Your task to perform on an android device: Is it going to rain tomorrow? Image 0: 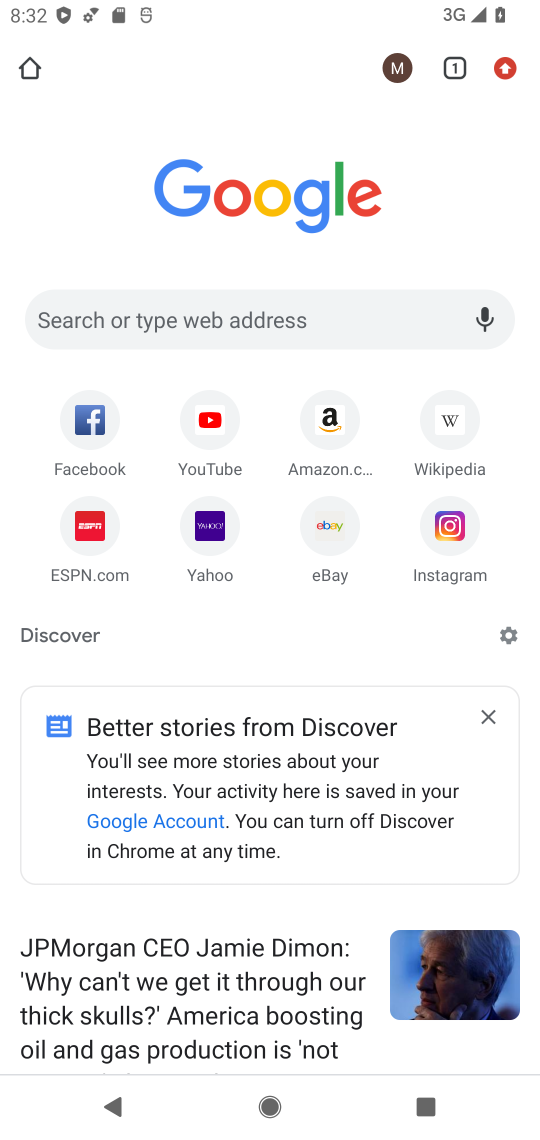
Step 0: press home button
Your task to perform on an android device: Is it going to rain tomorrow? Image 1: 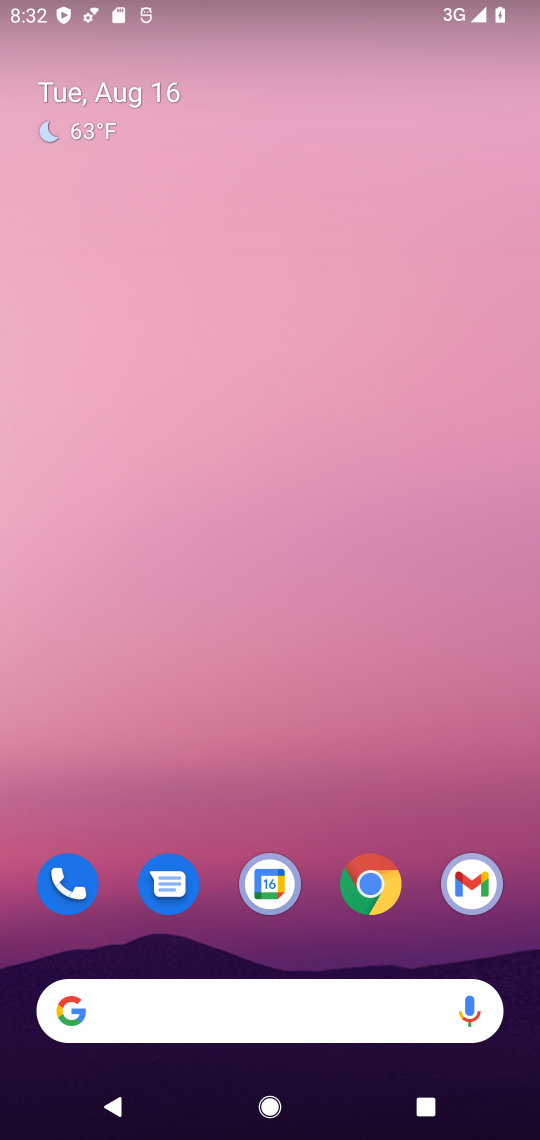
Step 1: click (75, 131)
Your task to perform on an android device: Is it going to rain tomorrow? Image 2: 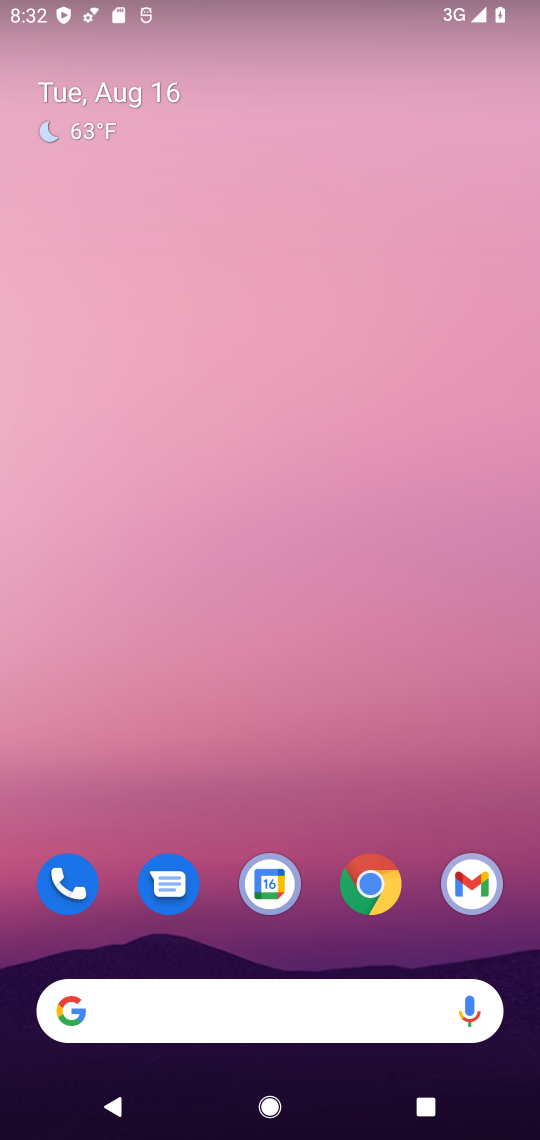
Step 2: click (48, 138)
Your task to perform on an android device: Is it going to rain tomorrow? Image 3: 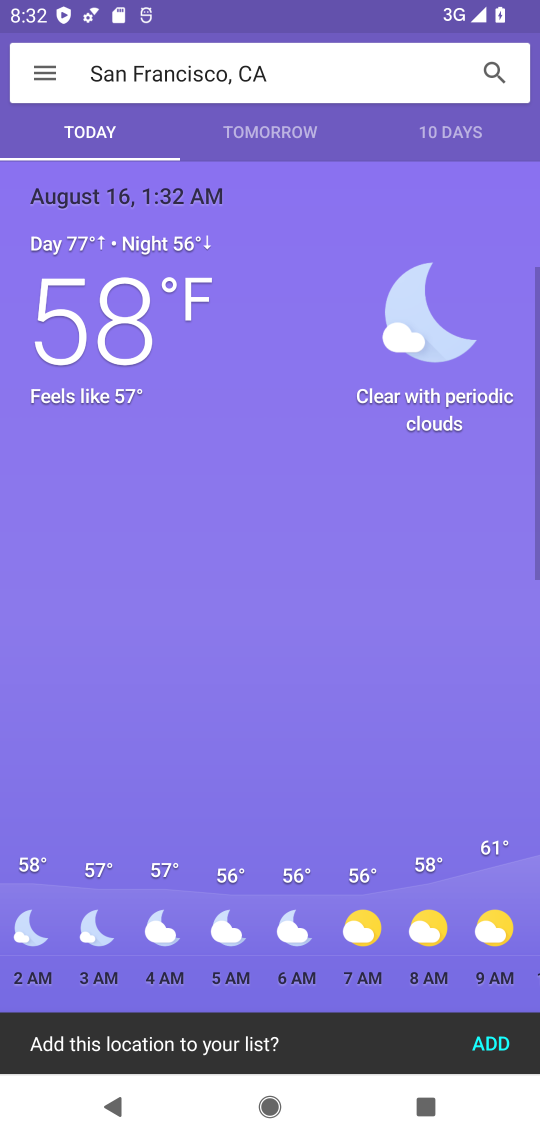
Step 3: click (260, 135)
Your task to perform on an android device: Is it going to rain tomorrow? Image 4: 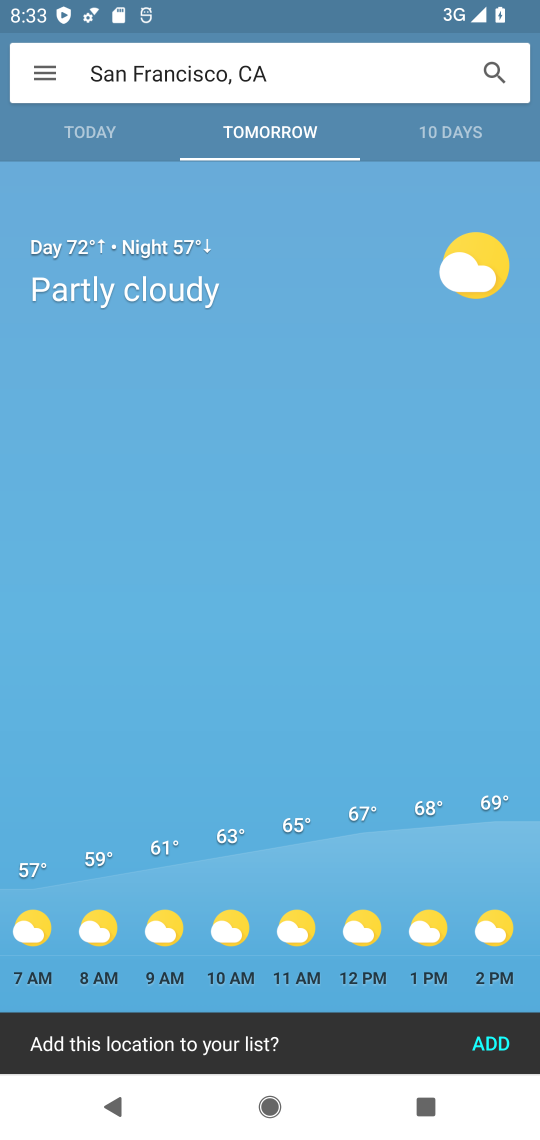
Step 4: task complete